Your task to perform on an android device: Go to eBay Image 0: 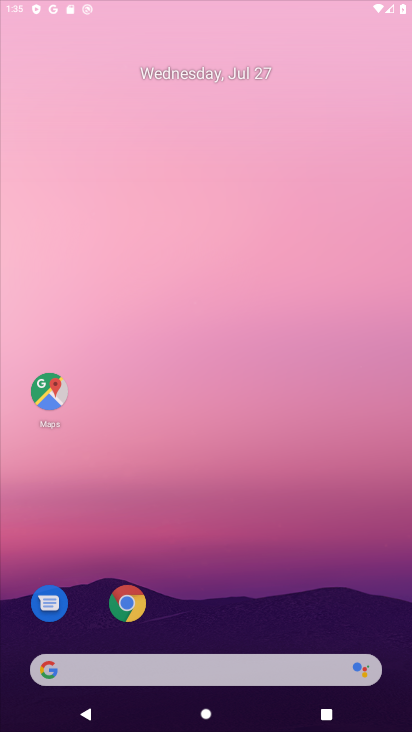
Step 0: click (100, 669)
Your task to perform on an android device: Go to eBay Image 1: 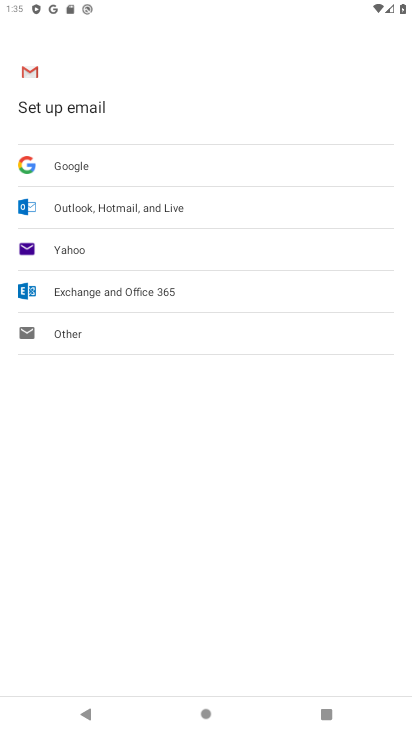
Step 1: press home button
Your task to perform on an android device: Go to eBay Image 2: 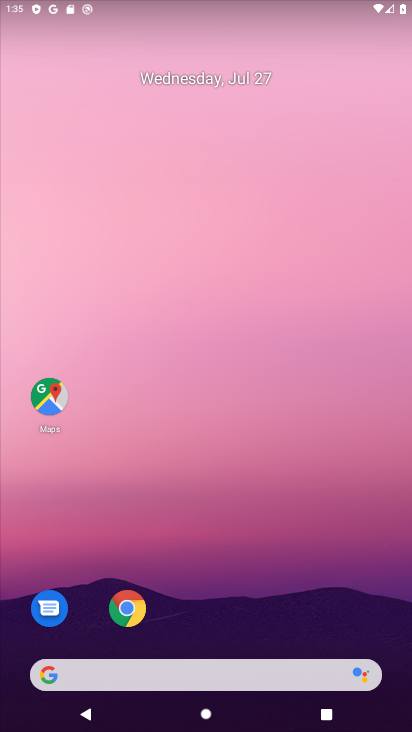
Step 2: click (97, 668)
Your task to perform on an android device: Go to eBay Image 3: 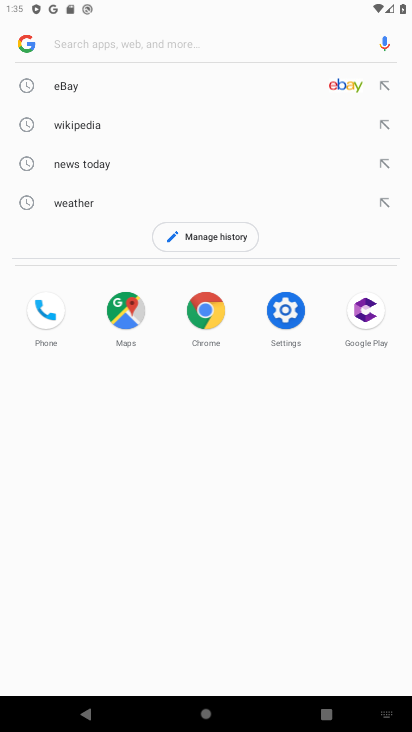
Step 3: click (71, 84)
Your task to perform on an android device: Go to eBay Image 4: 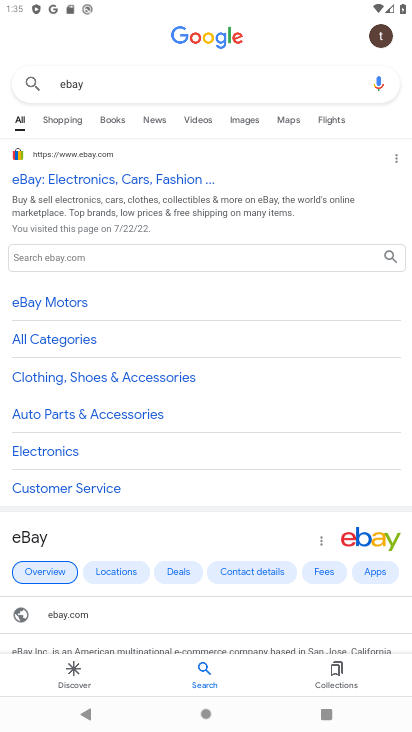
Step 4: task complete